Your task to perform on an android device: Go to Wikipedia Image 0: 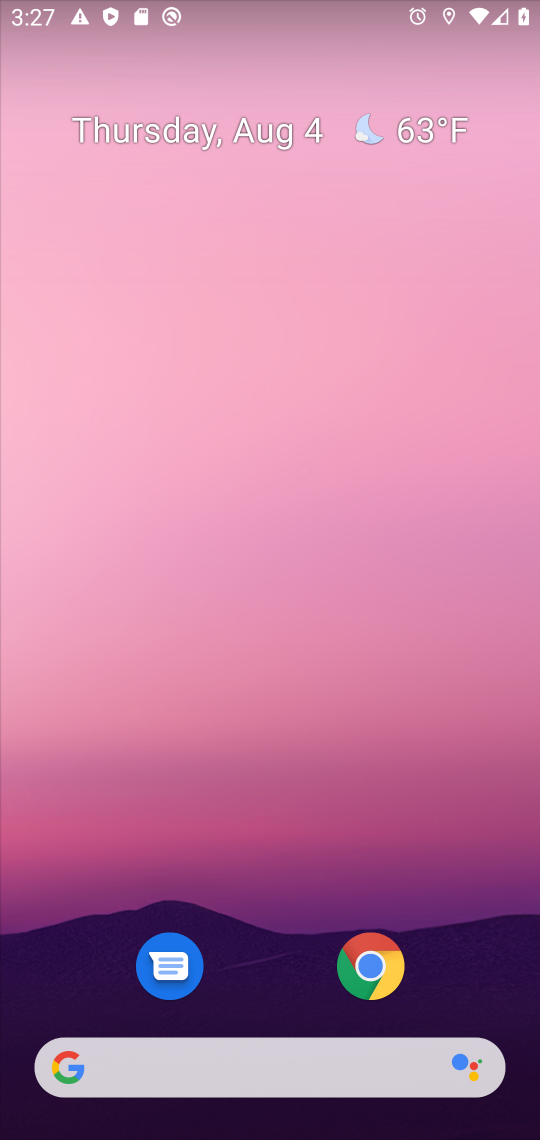
Step 0: click (60, 1080)
Your task to perform on an android device: Go to Wikipedia Image 1: 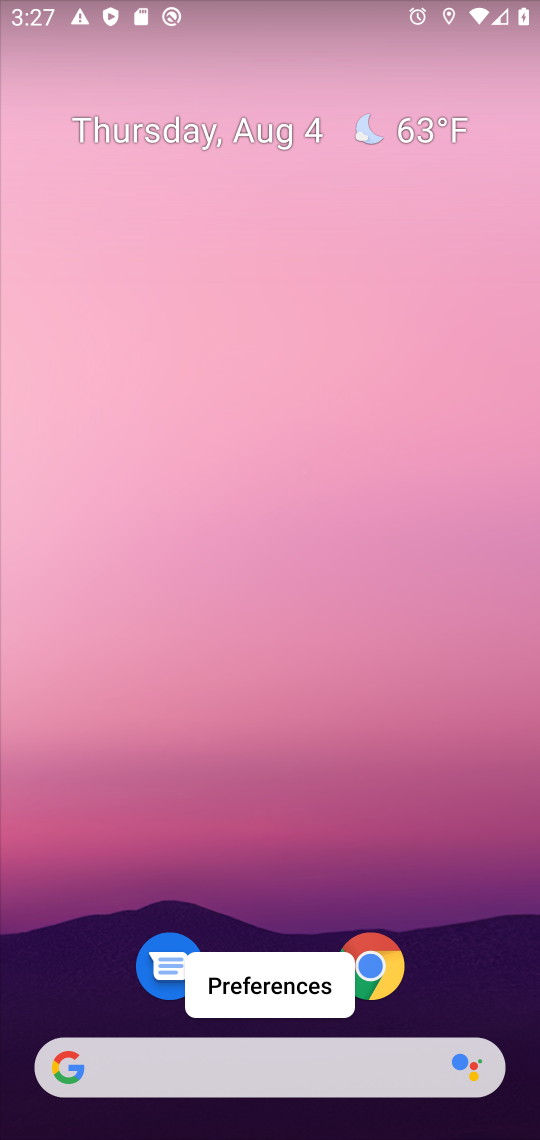
Step 1: click (62, 1065)
Your task to perform on an android device: Go to Wikipedia Image 2: 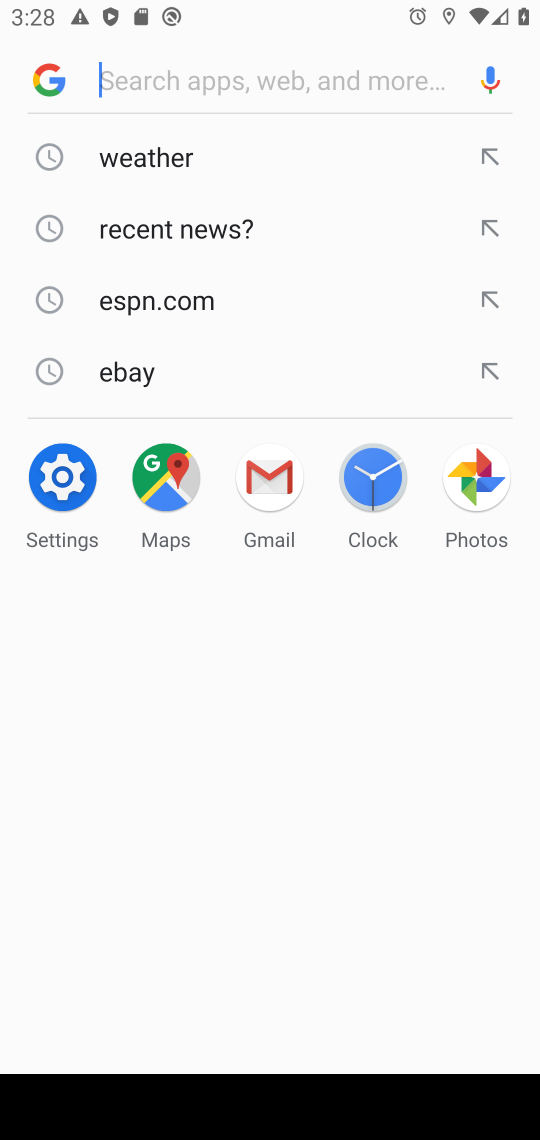
Step 2: press enter
Your task to perform on an android device: Go to Wikipedia Image 3: 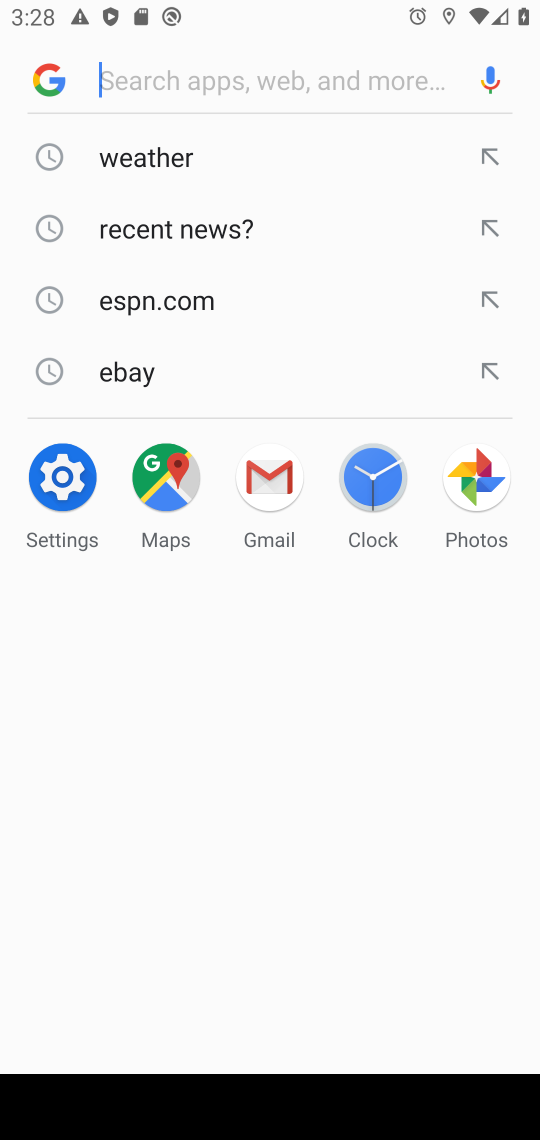
Step 3: type "Wikipedia"
Your task to perform on an android device: Go to Wikipedia Image 4: 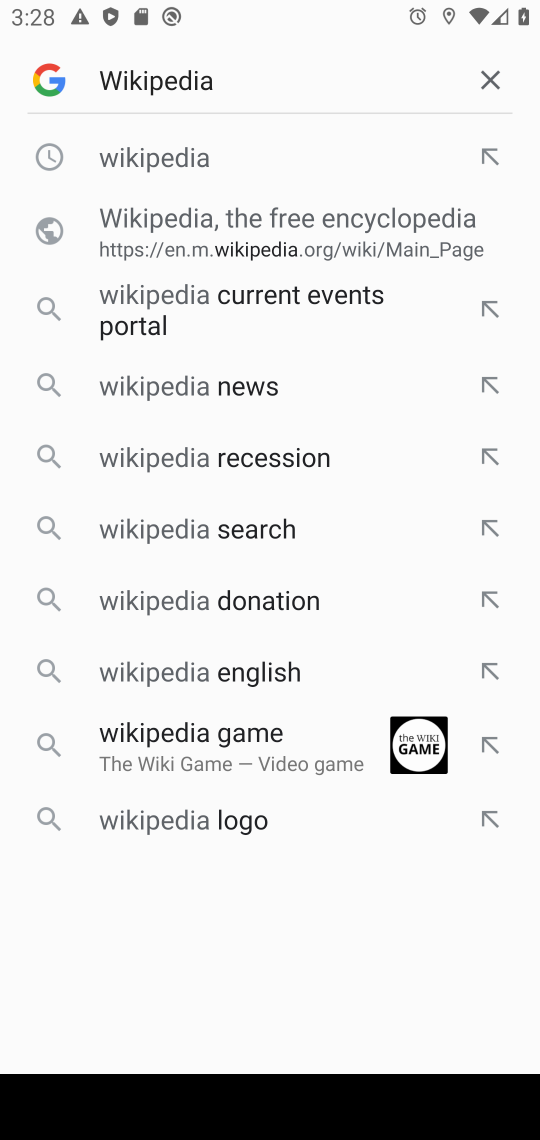
Step 4: click (137, 163)
Your task to perform on an android device: Go to Wikipedia Image 5: 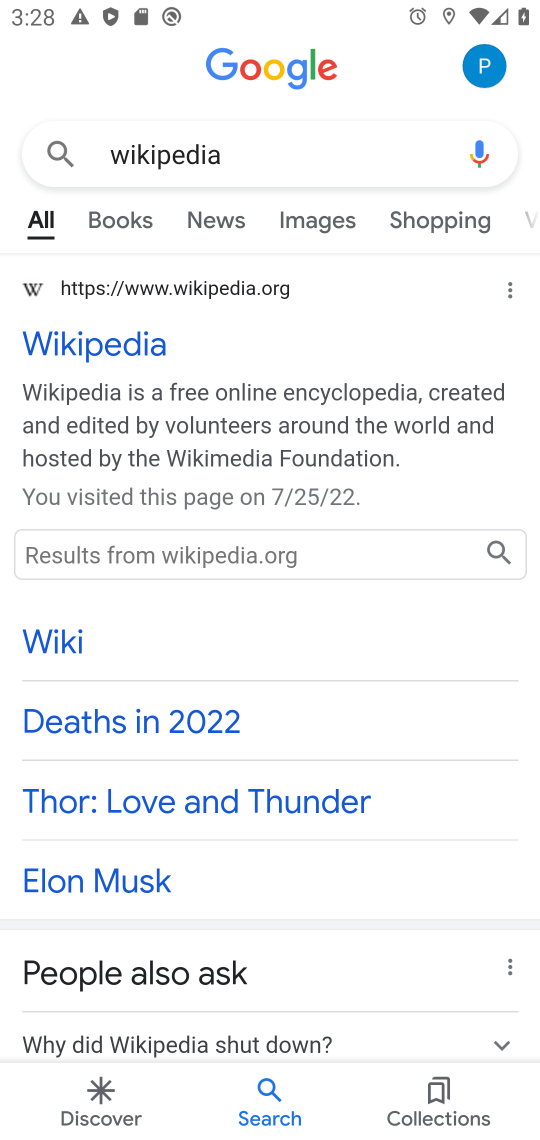
Step 5: click (92, 351)
Your task to perform on an android device: Go to Wikipedia Image 6: 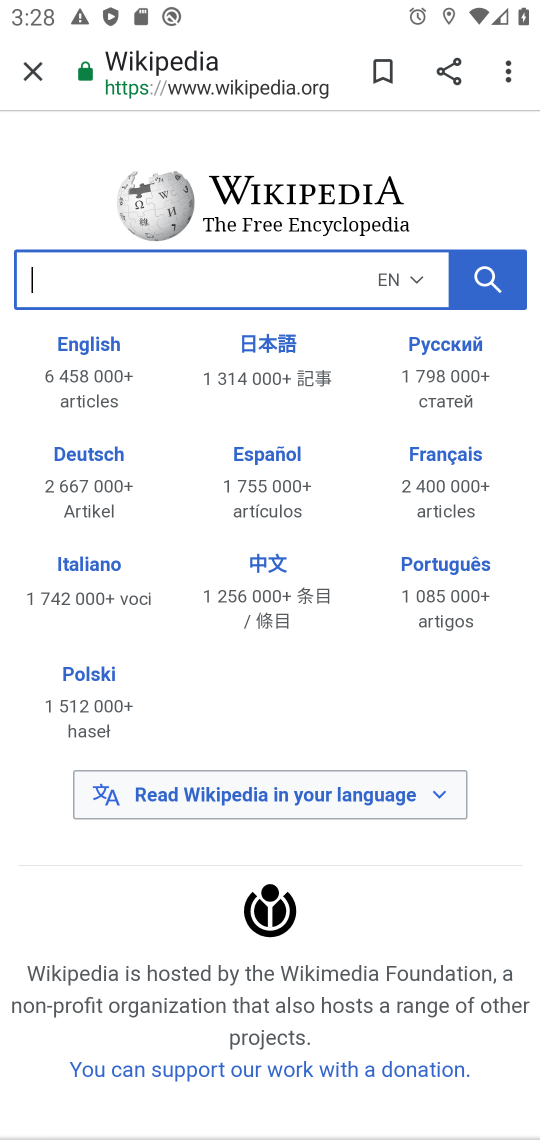
Step 6: task complete